Your task to perform on an android device: Go to sound settings Image 0: 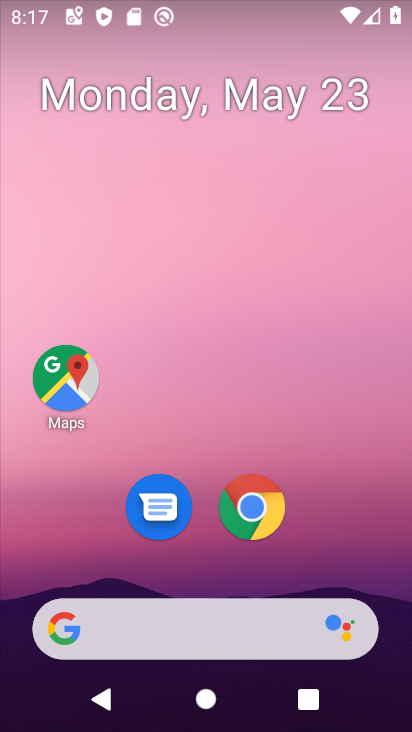
Step 0: drag from (334, 551) to (294, 122)
Your task to perform on an android device: Go to sound settings Image 1: 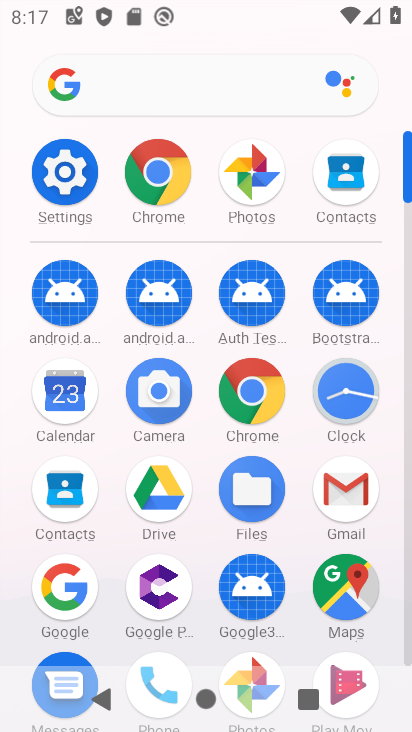
Step 1: click (48, 167)
Your task to perform on an android device: Go to sound settings Image 2: 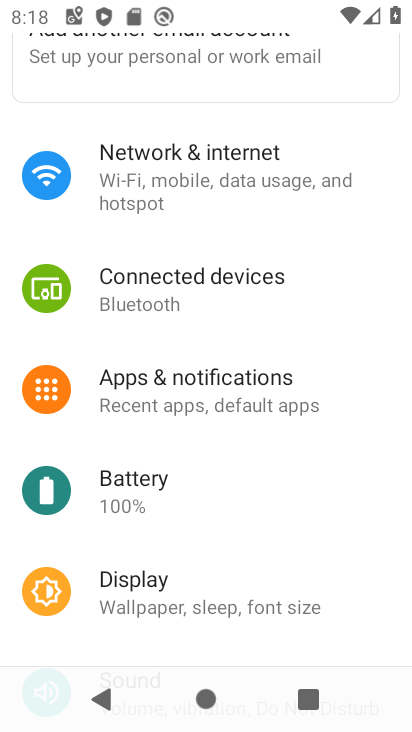
Step 2: drag from (219, 558) to (277, 166)
Your task to perform on an android device: Go to sound settings Image 3: 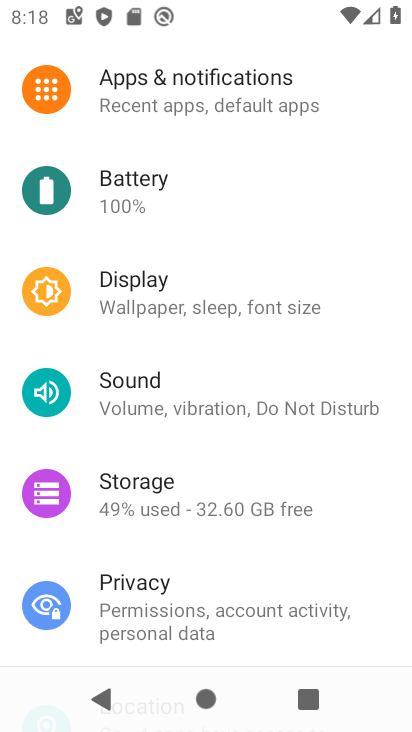
Step 3: click (225, 394)
Your task to perform on an android device: Go to sound settings Image 4: 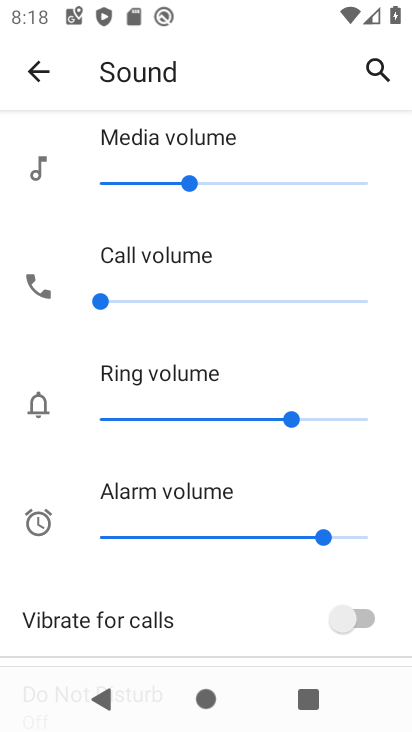
Step 4: task complete